Your task to perform on an android device: delete a single message in the gmail app Image 0: 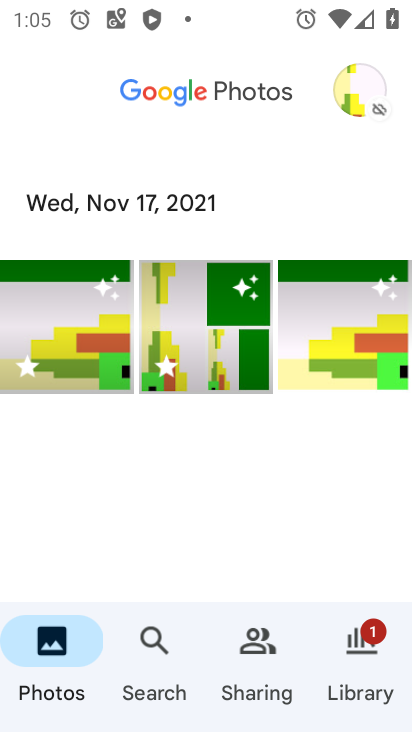
Step 0: press home button
Your task to perform on an android device: delete a single message in the gmail app Image 1: 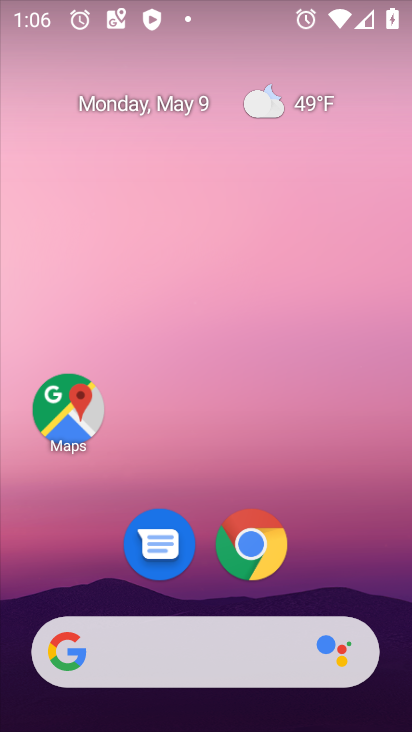
Step 1: drag from (213, 656) to (159, 129)
Your task to perform on an android device: delete a single message in the gmail app Image 2: 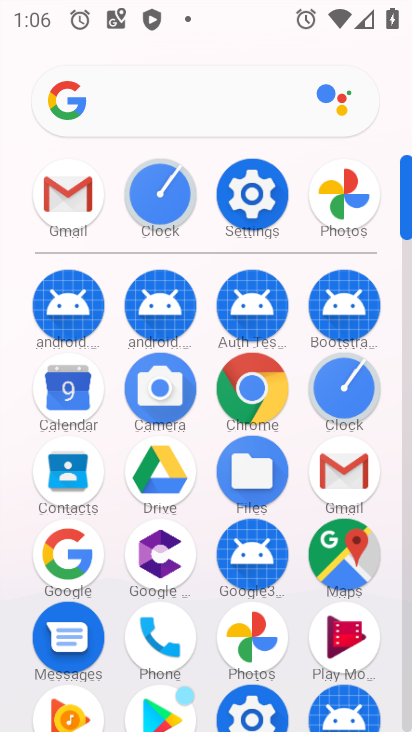
Step 2: click (329, 476)
Your task to perform on an android device: delete a single message in the gmail app Image 3: 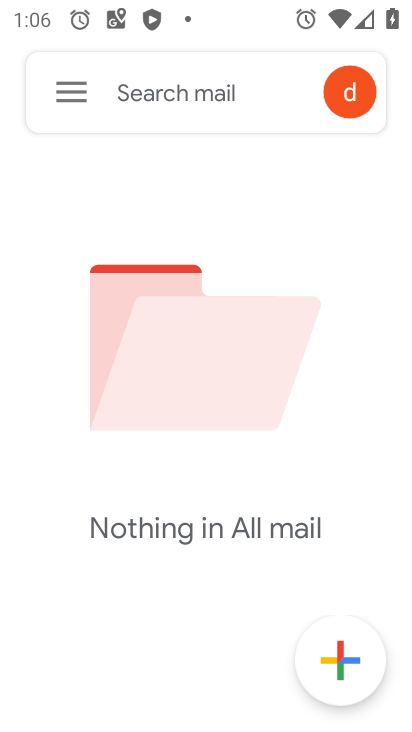
Step 3: task complete